Your task to perform on an android device: Show me popular games on the Play Store Image 0: 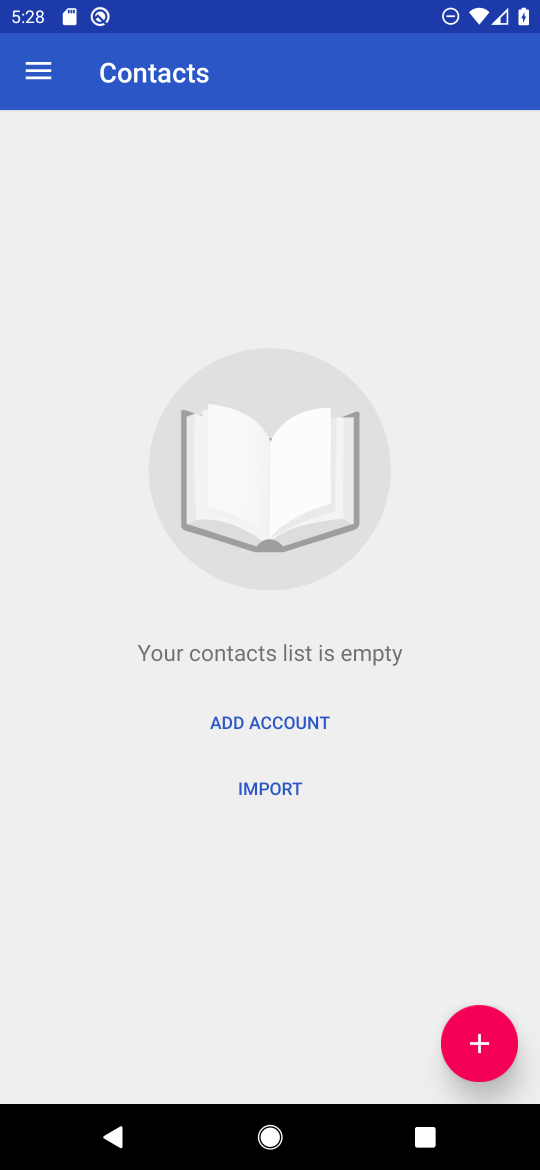
Step 0: press home button
Your task to perform on an android device: Show me popular games on the Play Store Image 1: 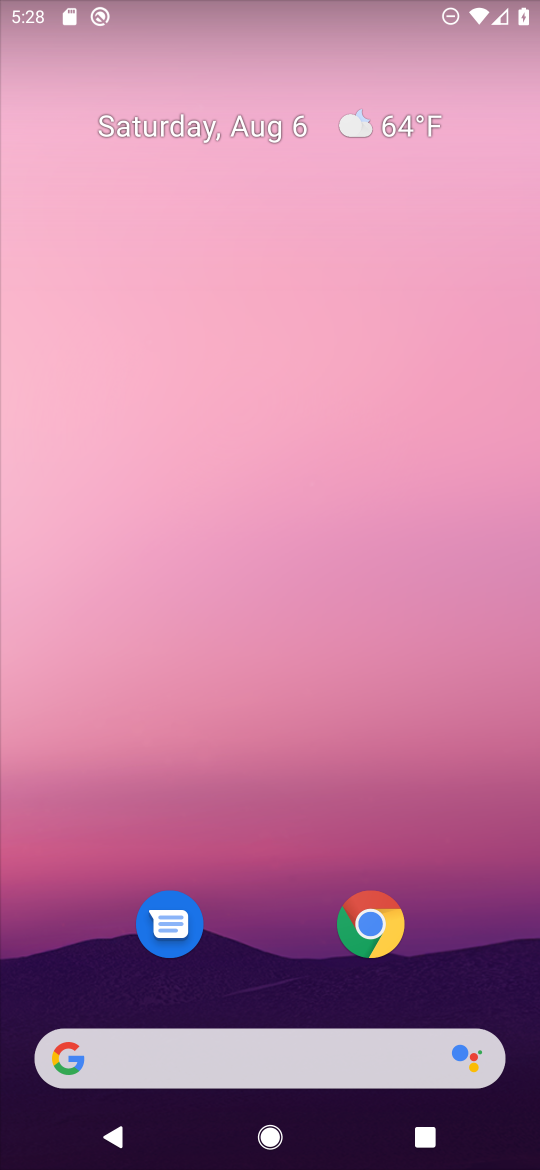
Step 1: drag from (271, 906) to (250, 21)
Your task to perform on an android device: Show me popular games on the Play Store Image 2: 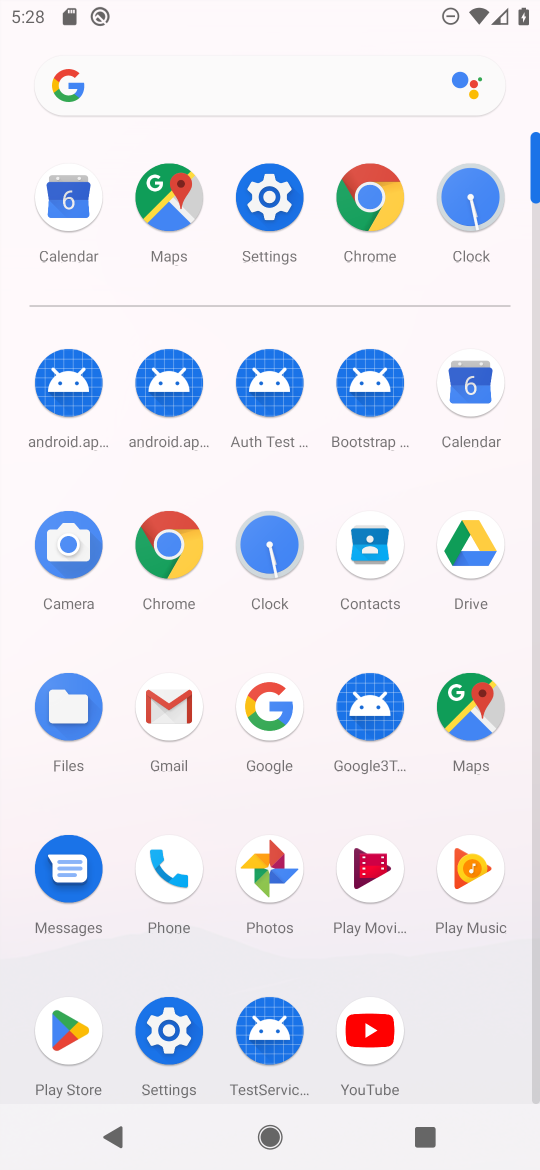
Step 2: click (68, 1029)
Your task to perform on an android device: Show me popular games on the Play Store Image 3: 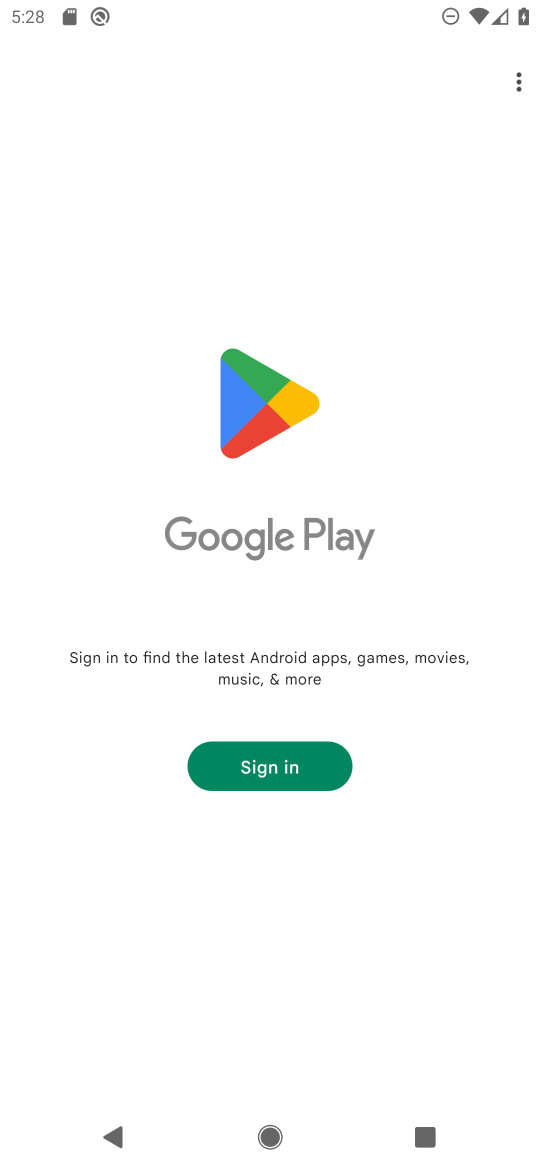
Step 3: click (251, 773)
Your task to perform on an android device: Show me popular games on the Play Store Image 4: 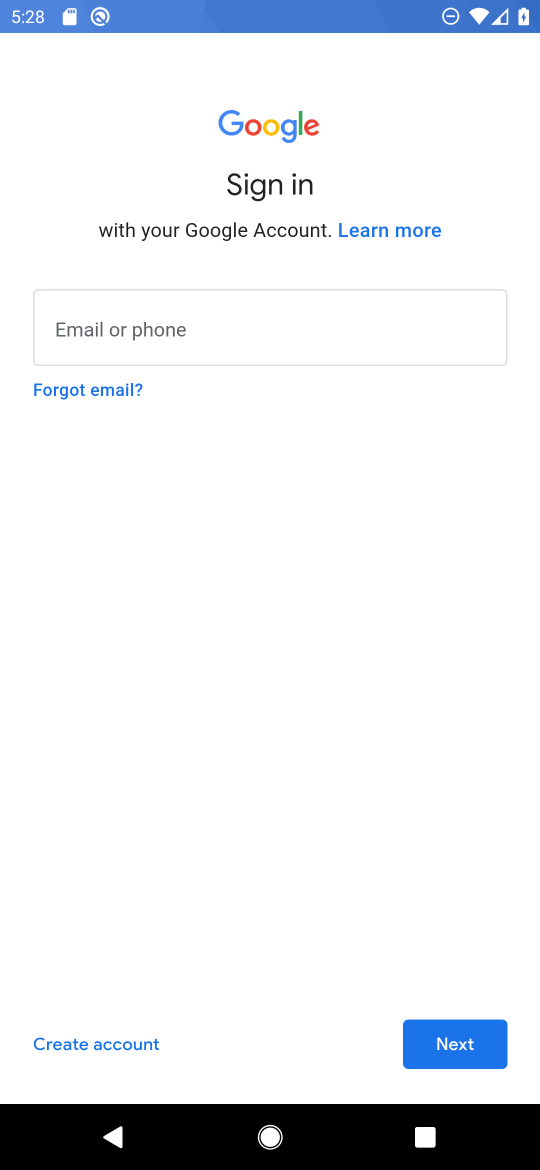
Step 4: task complete